Your task to perform on an android device: turn on bluetooth scan Image 0: 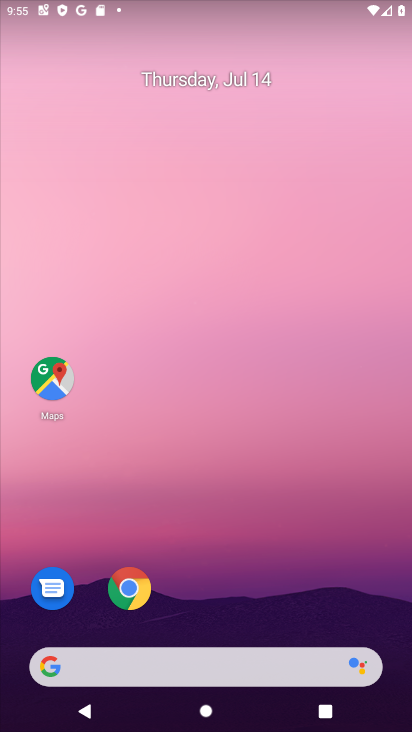
Step 0: drag from (148, 667) to (290, 135)
Your task to perform on an android device: turn on bluetooth scan Image 1: 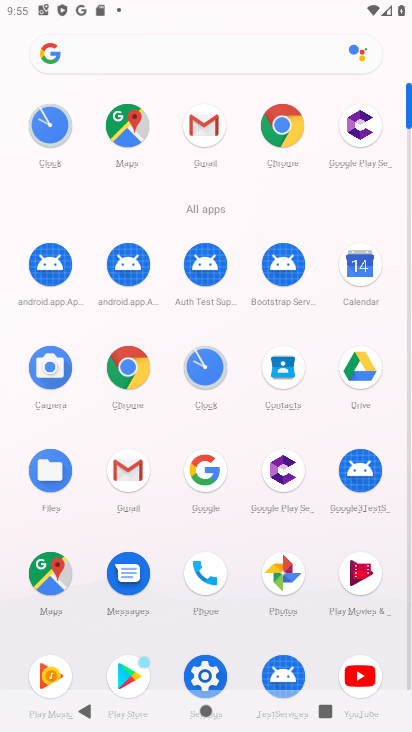
Step 1: click (205, 667)
Your task to perform on an android device: turn on bluetooth scan Image 2: 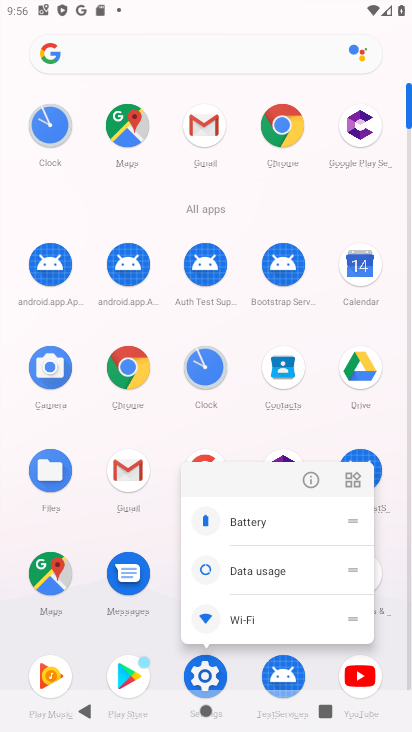
Step 2: click (207, 674)
Your task to perform on an android device: turn on bluetooth scan Image 3: 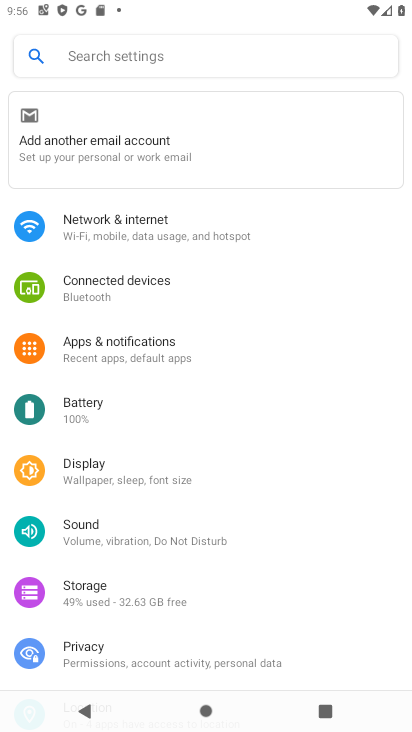
Step 3: drag from (227, 472) to (304, 209)
Your task to perform on an android device: turn on bluetooth scan Image 4: 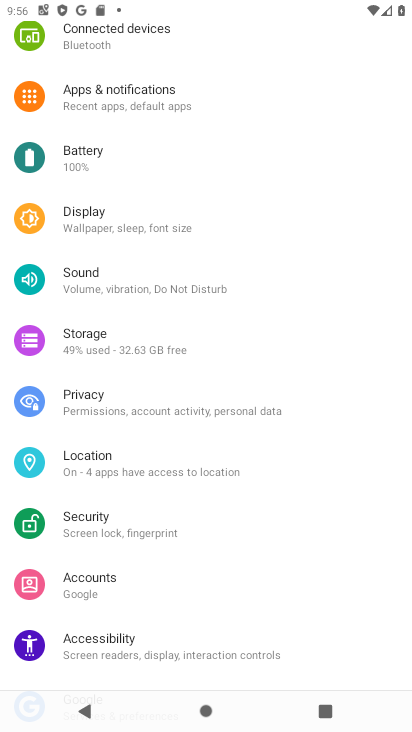
Step 4: click (103, 461)
Your task to perform on an android device: turn on bluetooth scan Image 5: 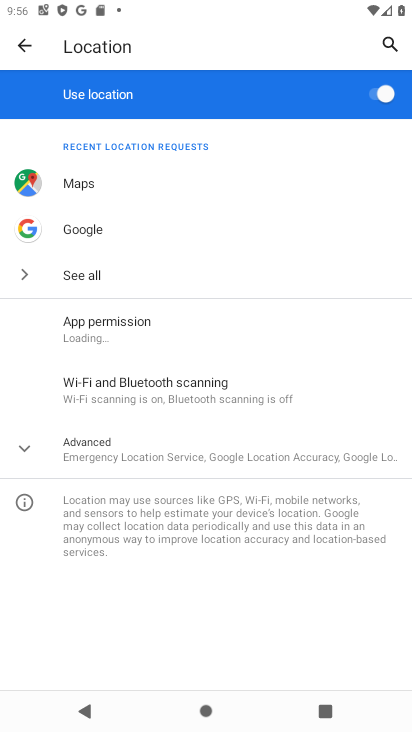
Step 5: click (150, 385)
Your task to perform on an android device: turn on bluetooth scan Image 6: 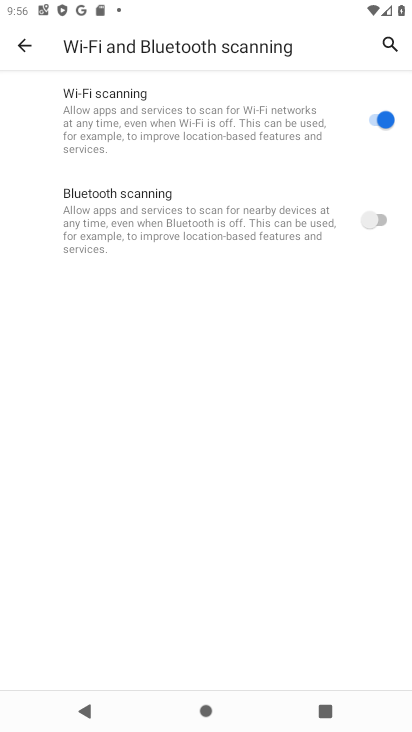
Step 6: click (384, 219)
Your task to perform on an android device: turn on bluetooth scan Image 7: 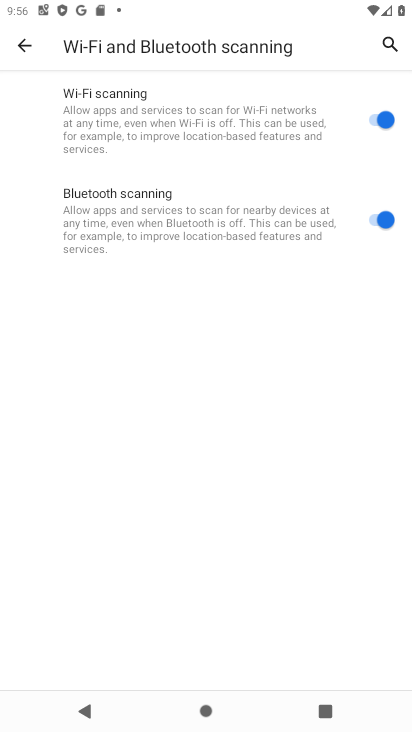
Step 7: task complete